Your task to perform on an android device: Open Maps and search for coffee Image 0: 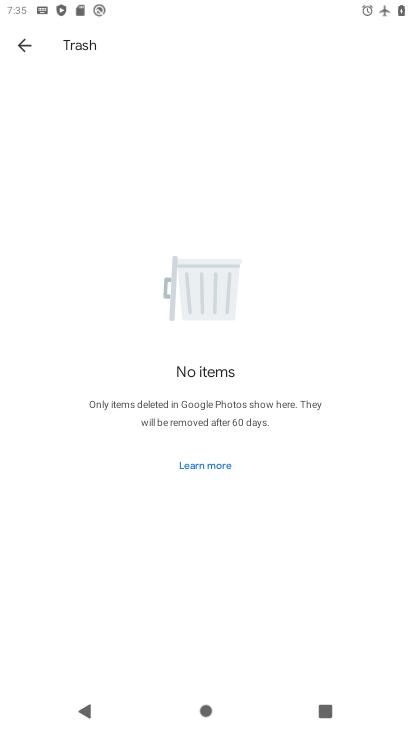
Step 0: press home button
Your task to perform on an android device: Open Maps and search for coffee Image 1: 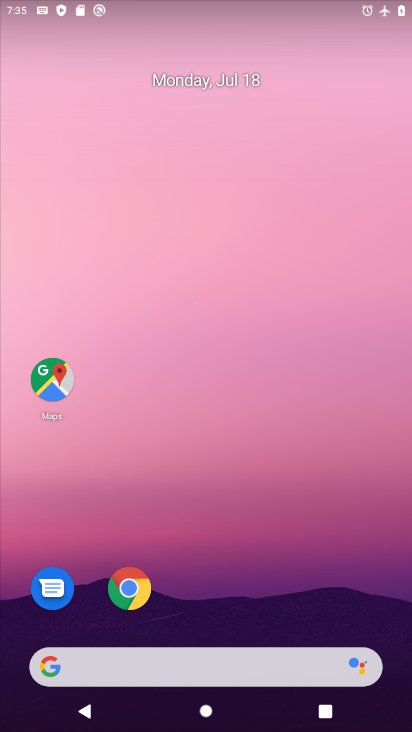
Step 1: click (55, 373)
Your task to perform on an android device: Open Maps and search for coffee Image 2: 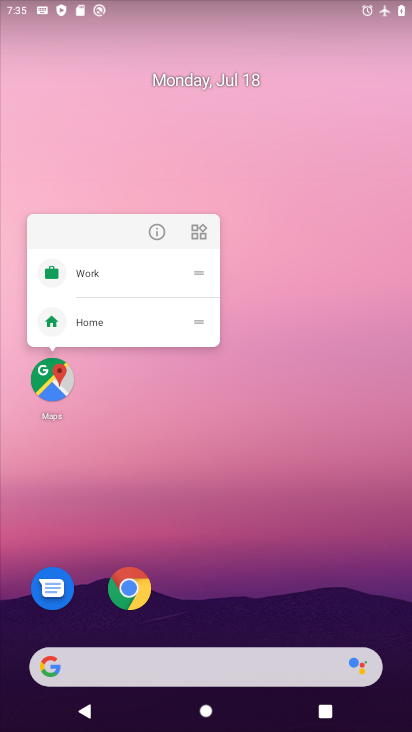
Step 2: click (61, 390)
Your task to perform on an android device: Open Maps and search for coffee Image 3: 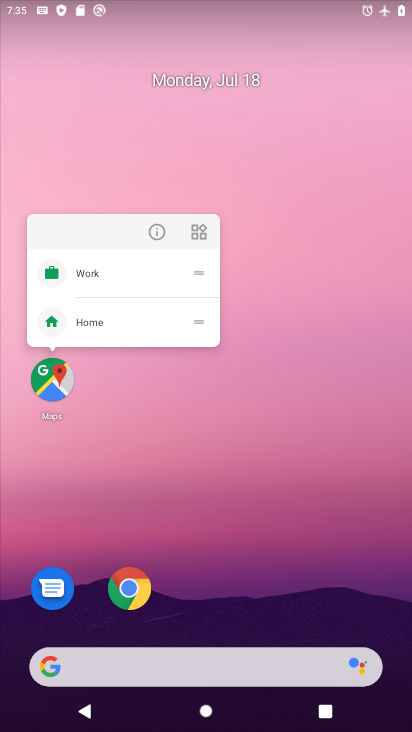
Step 3: click (61, 391)
Your task to perform on an android device: Open Maps and search for coffee Image 4: 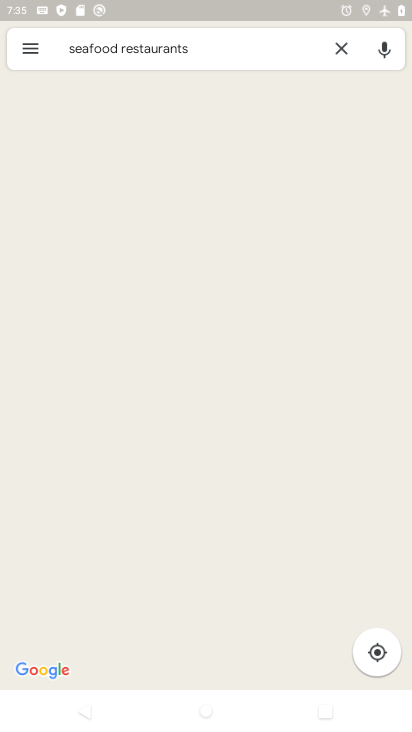
Step 4: click (338, 55)
Your task to perform on an android device: Open Maps and search for coffee Image 5: 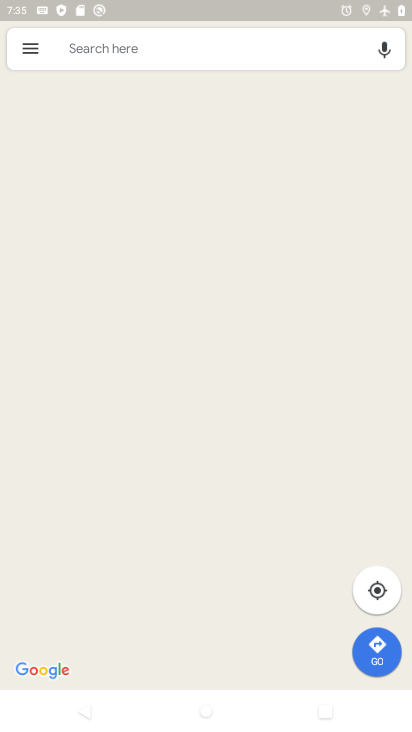
Step 5: click (170, 55)
Your task to perform on an android device: Open Maps and search for coffee Image 6: 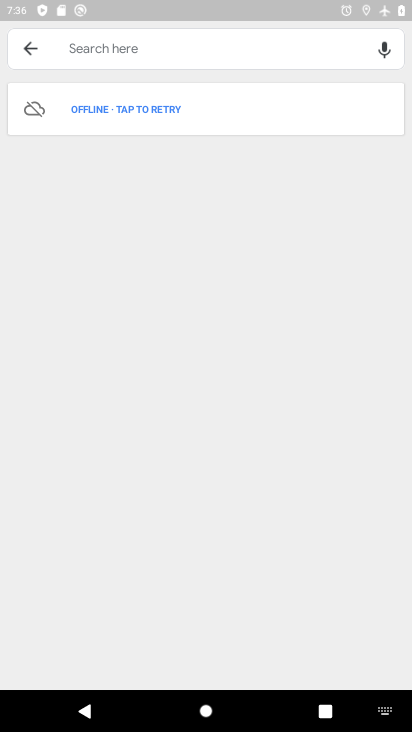
Step 6: type "coffee"
Your task to perform on an android device: Open Maps and search for coffee Image 7: 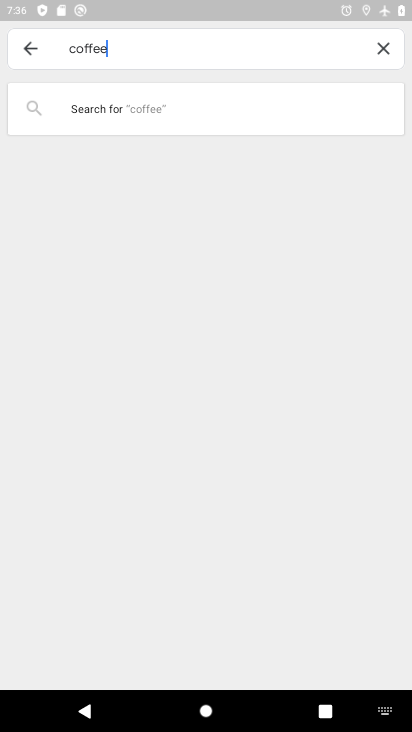
Step 7: task complete